Your task to perform on an android device: Open notification settings Image 0: 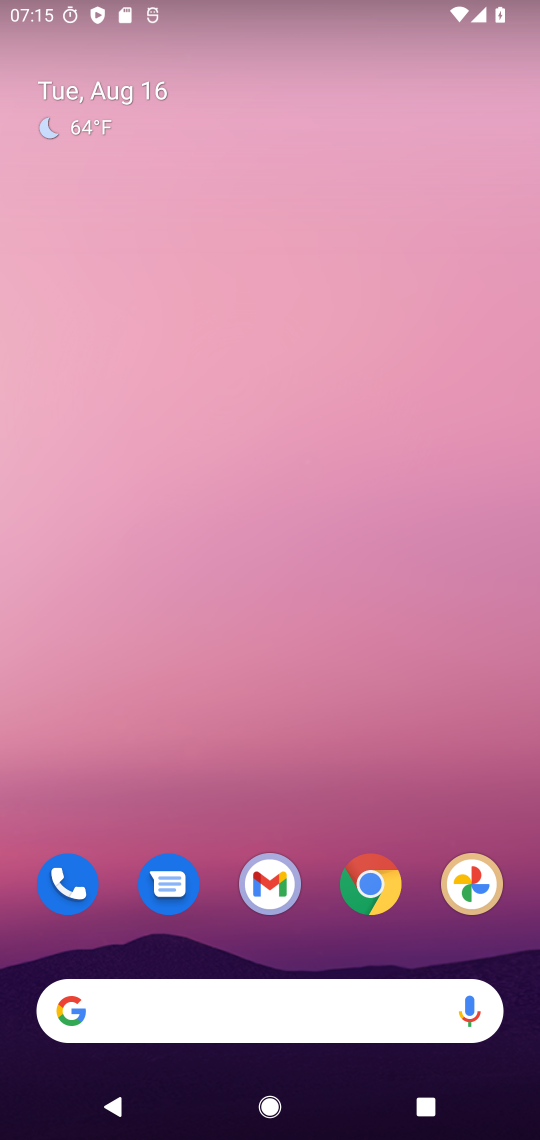
Step 0: press home button
Your task to perform on an android device: Open notification settings Image 1: 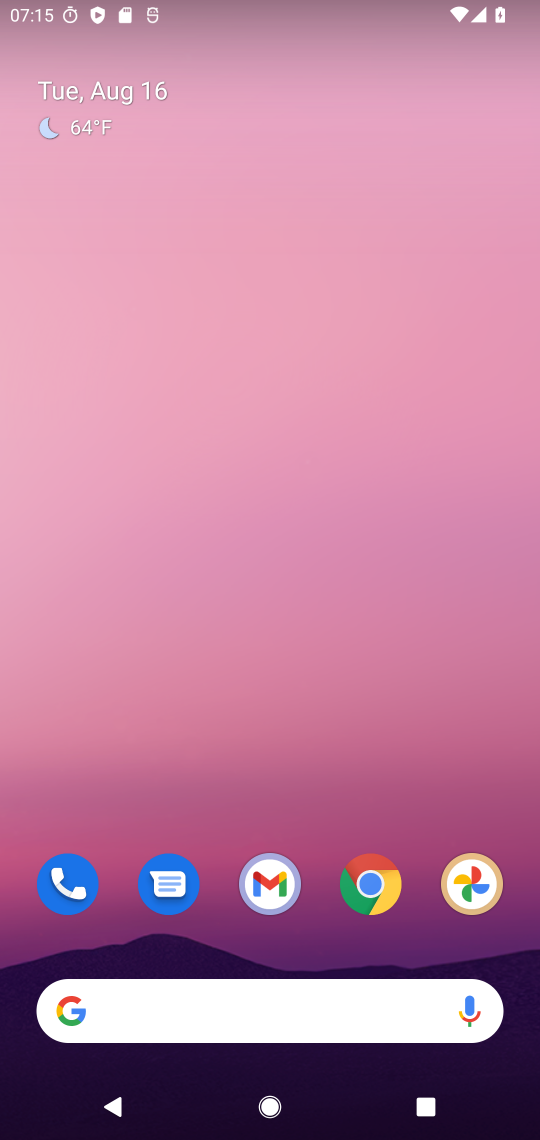
Step 1: drag from (327, 825) to (358, 111)
Your task to perform on an android device: Open notification settings Image 2: 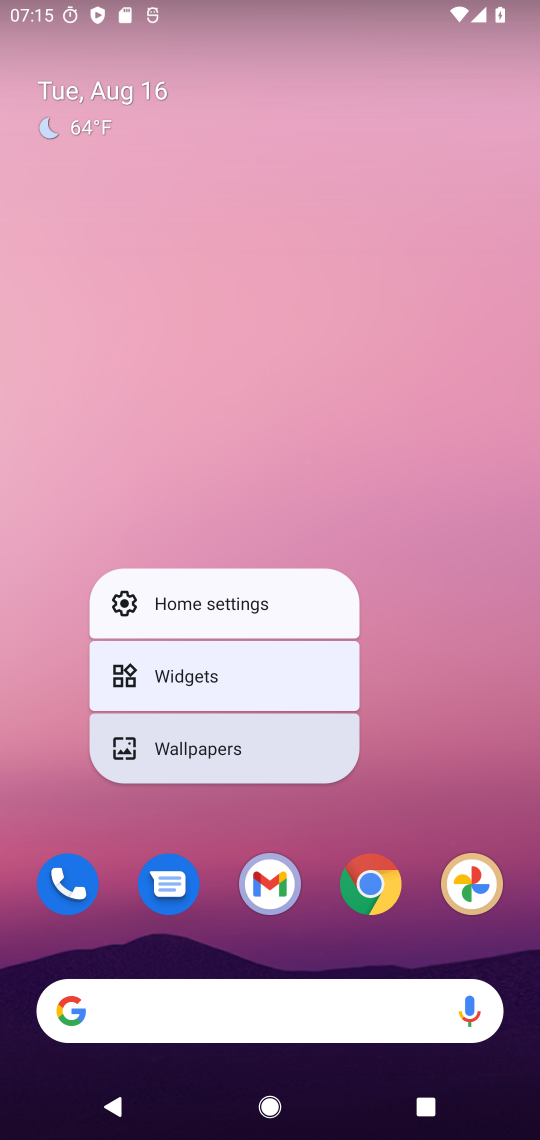
Step 2: press home button
Your task to perform on an android device: Open notification settings Image 3: 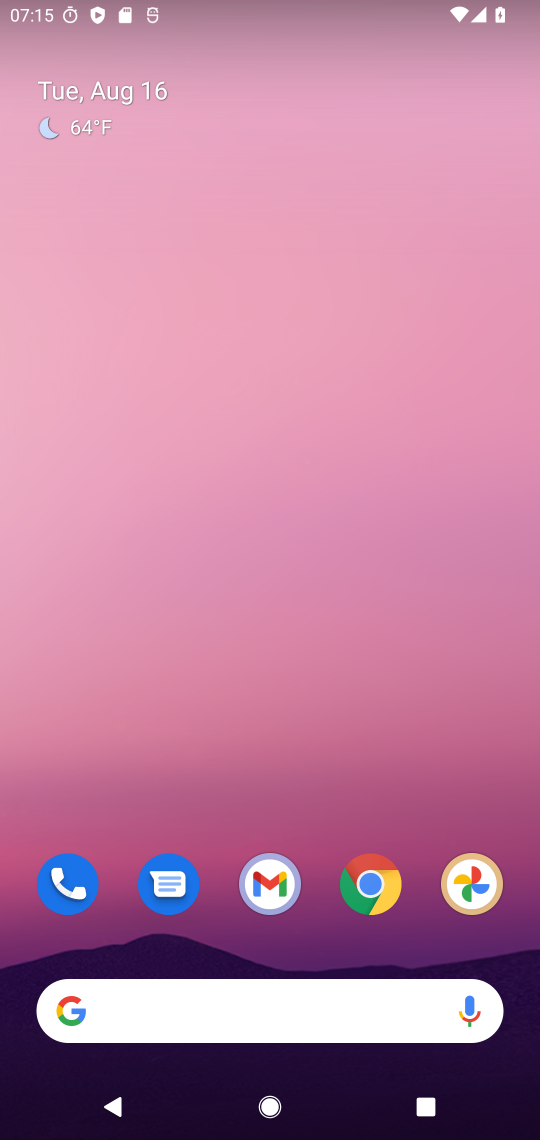
Step 3: drag from (250, 831) to (263, 35)
Your task to perform on an android device: Open notification settings Image 4: 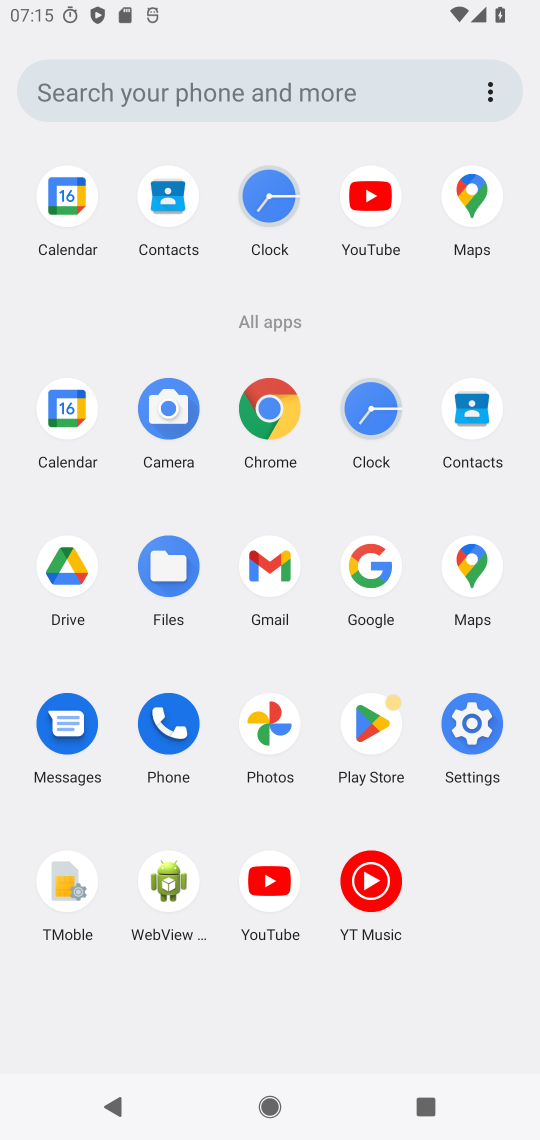
Step 4: click (471, 709)
Your task to perform on an android device: Open notification settings Image 5: 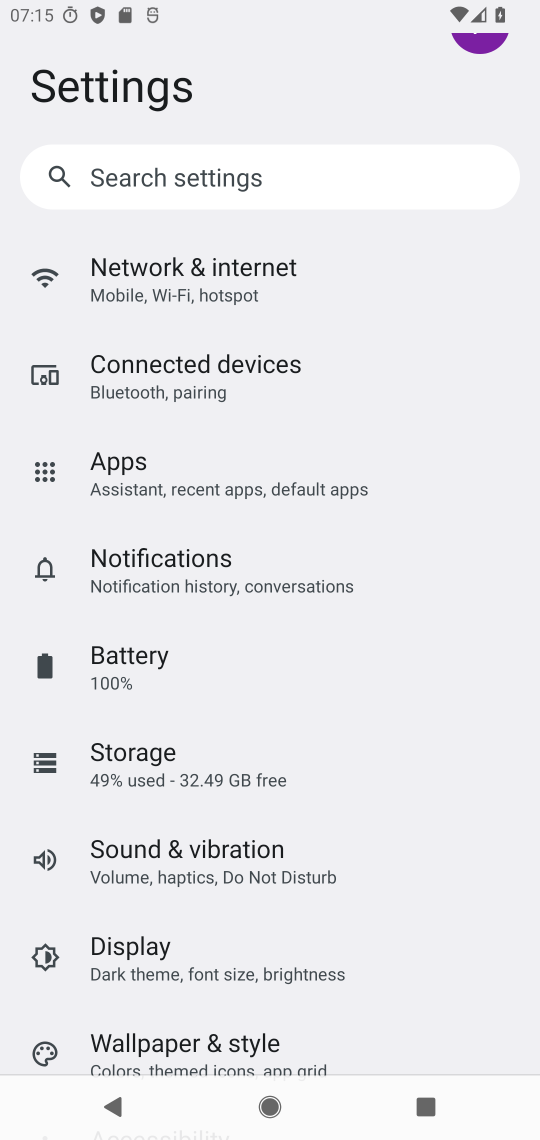
Step 5: click (249, 570)
Your task to perform on an android device: Open notification settings Image 6: 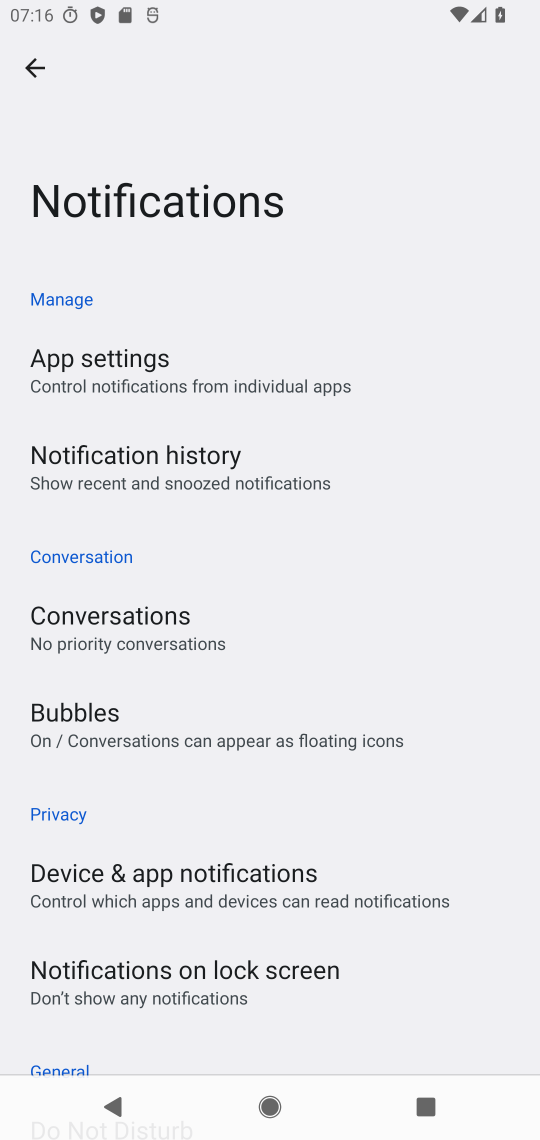
Step 6: task complete